Your task to perform on an android device: toggle improve location accuracy Image 0: 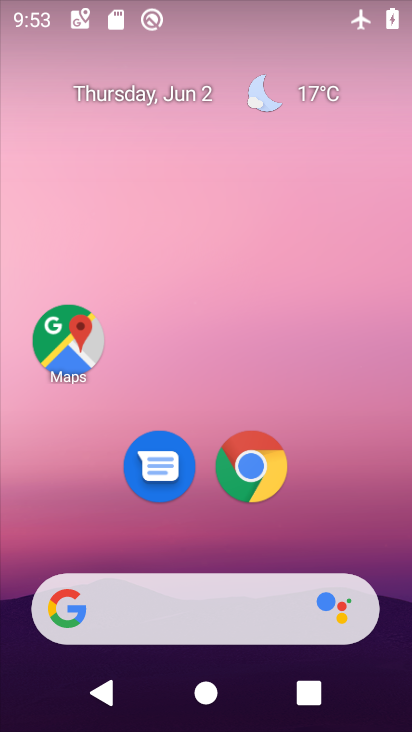
Step 0: drag from (273, 475) to (273, 190)
Your task to perform on an android device: toggle improve location accuracy Image 1: 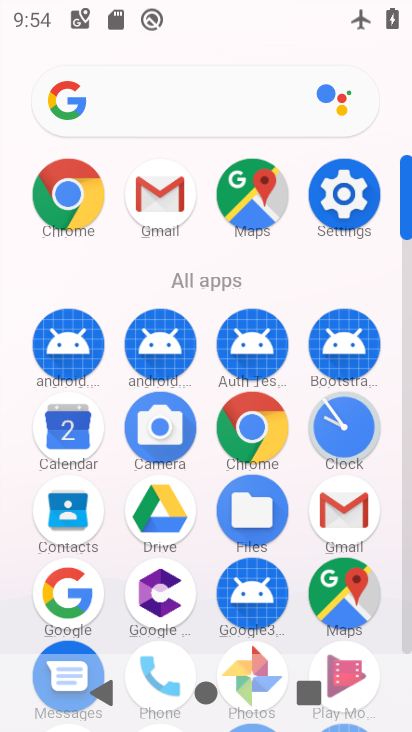
Step 1: click (346, 194)
Your task to perform on an android device: toggle improve location accuracy Image 2: 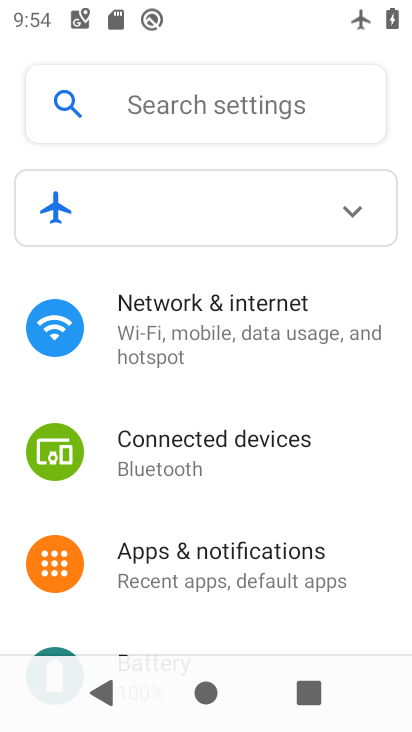
Step 2: drag from (221, 583) to (234, 270)
Your task to perform on an android device: toggle improve location accuracy Image 3: 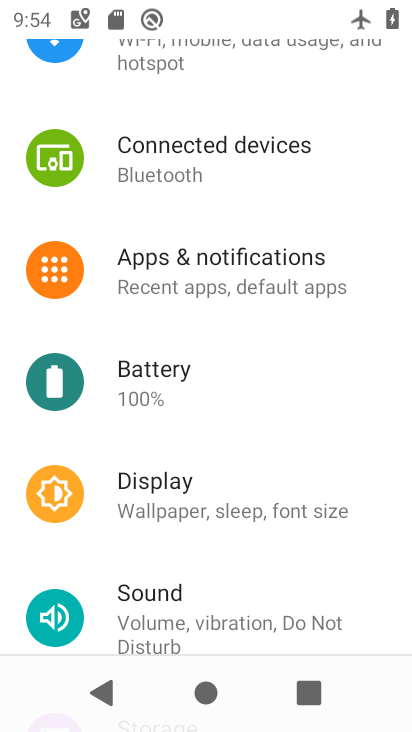
Step 3: drag from (222, 554) to (232, 247)
Your task to perform on an android device: toggle improve location accuracy Image 4: 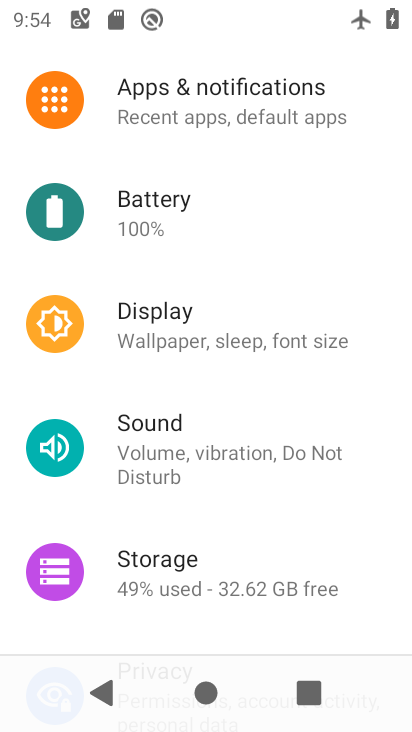
Step 4: drag from (223, 585) to (199, 265)
Your task to perform on an android device: toggle improve location accuracy Image 5: 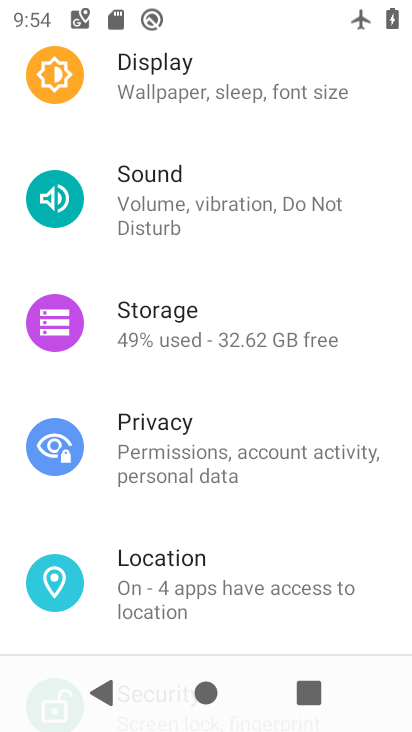
Step 5: click (162, 570)
Your task to perform on an android device: toggle improve location accuracy Image 6: 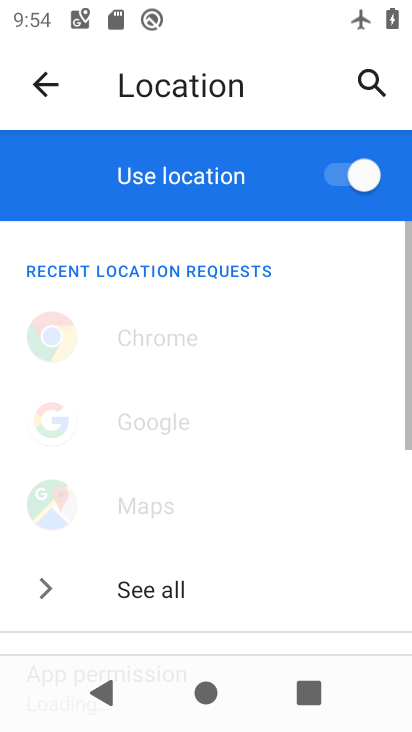
Step 6: drag from (201, 586) to (194, 267)
Your task to perform on an android device: toggle improve location accuracy Image 7: 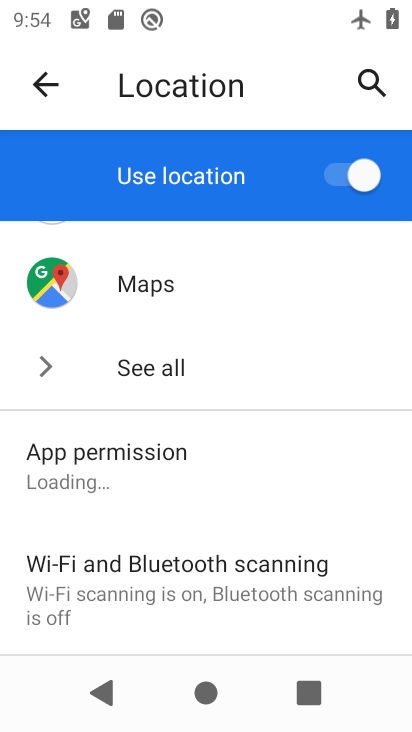
Step 7: drag from (198, 550) to (174, 190)
Your task to perform on an android device: toggle improve location accuracy Image 8: 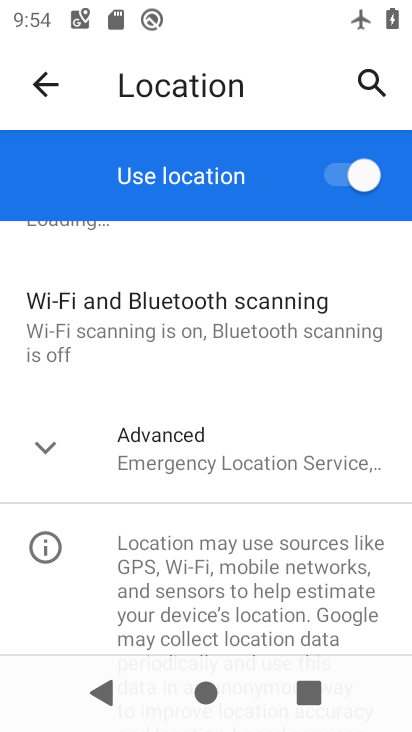
Step 8: click (156, 440)
Your task to perform on an android device: toggle improve location accuracy Image 9: 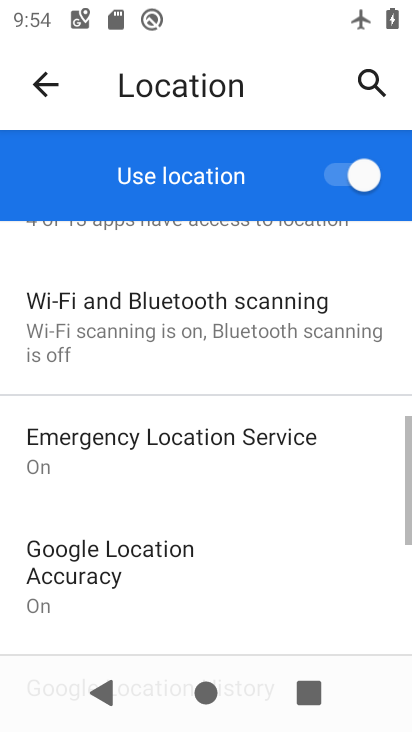
Step 9: click (139, 558)
Your task to perform on an android device: toggle improve location accuracy Image 10: 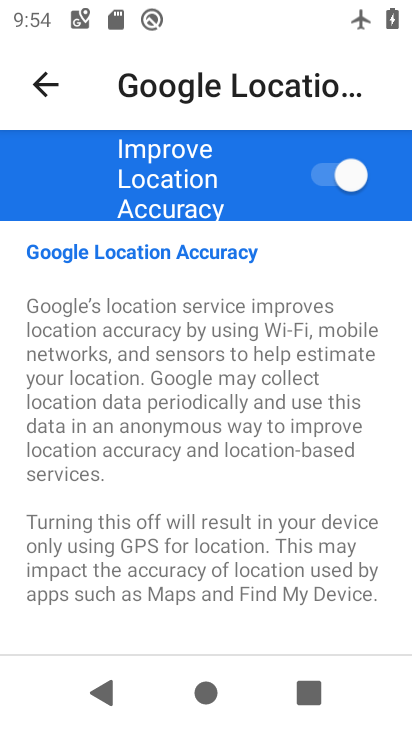
Step 10: click (350, 174)
Your task to perform on an android device: toggle improve location accuracy Image 11: 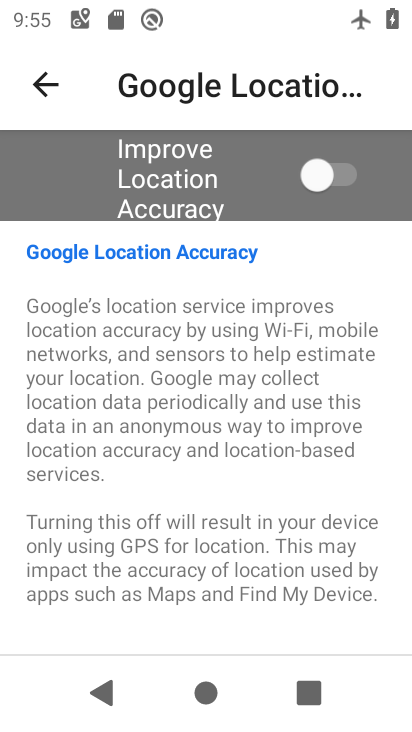
Step 11: task complete